Your task to perform on an android device: Is it going to rain tomorrow? Image 0: 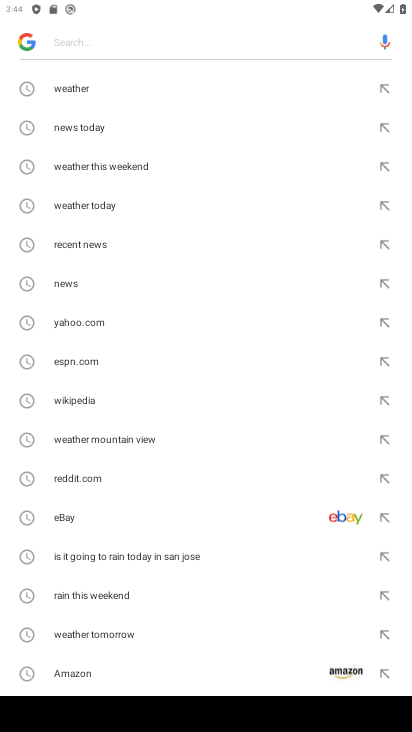
Step 0: press back button
Your task to perform on an android device: Is it going to rain tomorrow? Image 1: 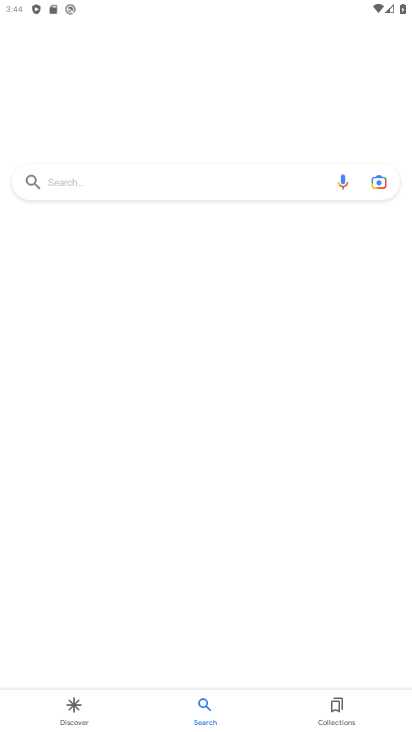
Step 1: press back button
Your task to perform on an android device: Is it going to rain tomorrow? Image 2: 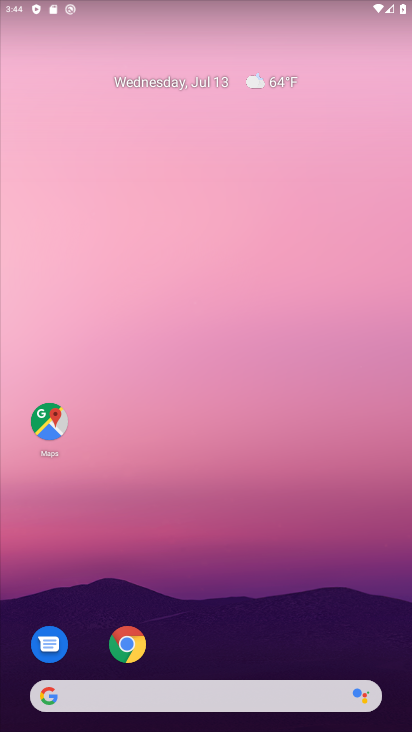
Step 2: drag from (205, 635) to (265, 79)
Your task to perform on an android device: Is it going to rain tomorrow? Image 3: 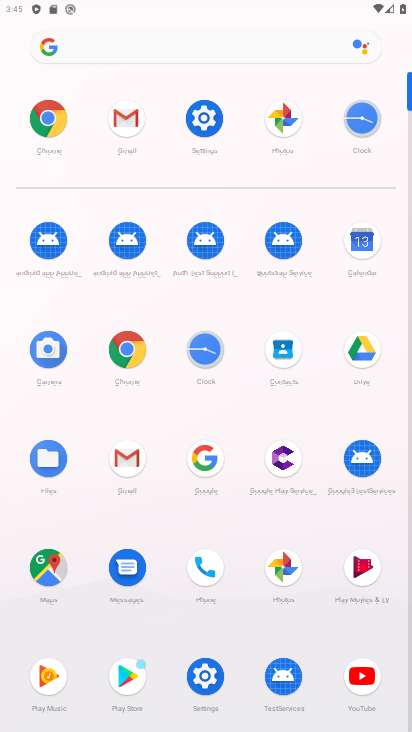
Step 3: click (133, 50)
Your task to perform on an android device: Is it going to rain tomorrow? Image 4: 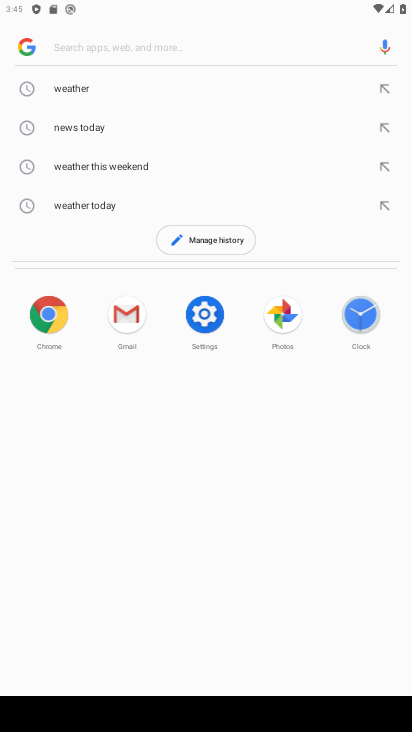
Step 4: click (76, 85)
Your task to perform on an android device: Is it going to rain tomorrow? Image 5: 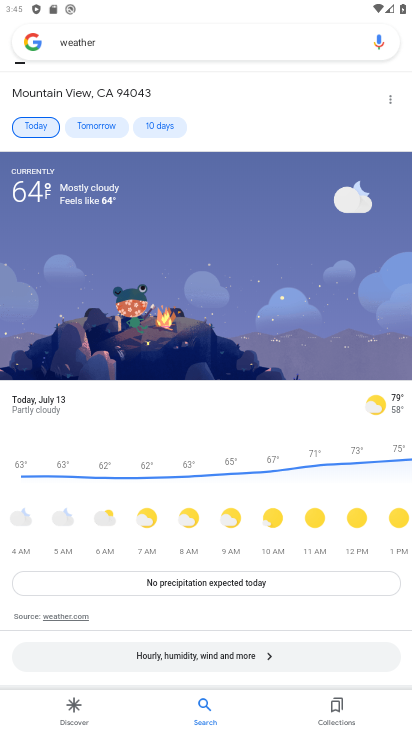
Step 5: click (107, 120)
Your task to perform on an android device: Is it going to rain tomorrow? Image 6: 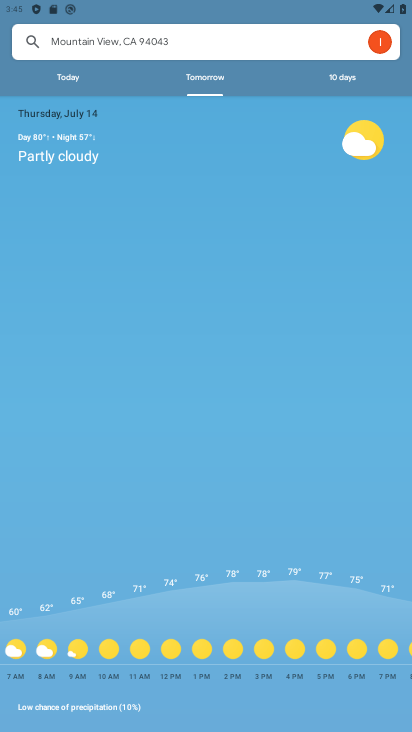
Step 6: task complete